Your task to perform on an android device: turn smart compose on in the gmail app Image 0: 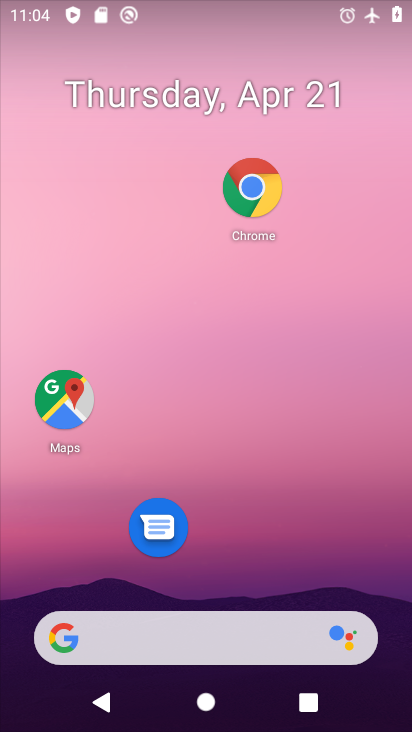
Step 0: drag from (284, 461) to (324, 183)
Your task to perform on an android device: turn smart compose on in the gmail app Image 1: 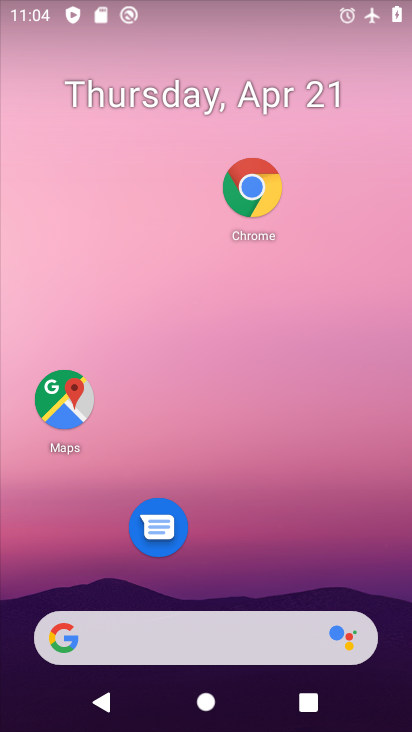
Step 1: drag from (264, 601) to (333, 181)
Your task to perform on an android device: turn smart compose on in the gmail app Image 2: 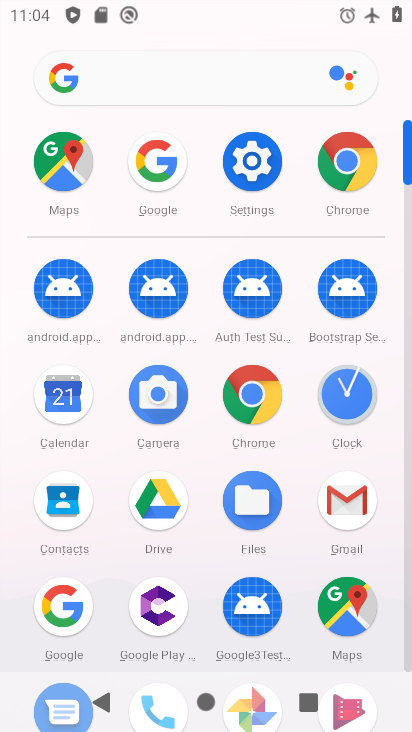
Step 2: click (384, 527)
Your task to perform on an android device: turn smart compose on in the gmail app Image 3: 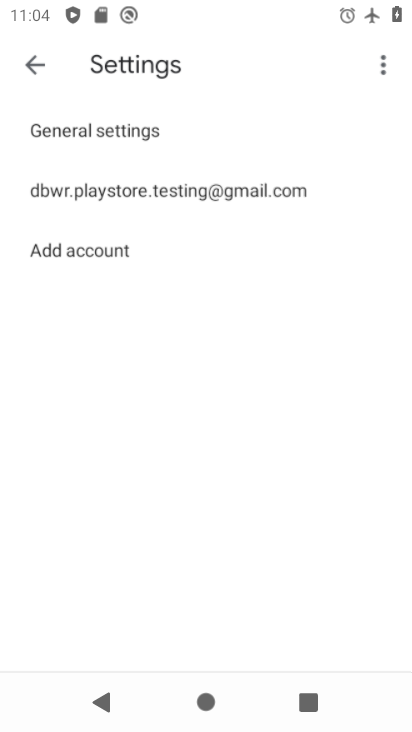
Step 3: drag from (357, 521) to (369, 422)
Your task to perform on an android device: turn smart compose on in the gmail app Image 4: 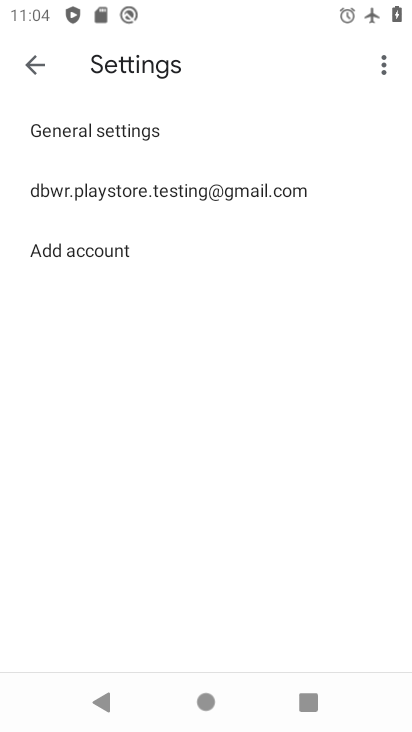
Step 4: click (43, 80)
Your task to perform on an android device: turn smart compose on in the gmail app Image 5: 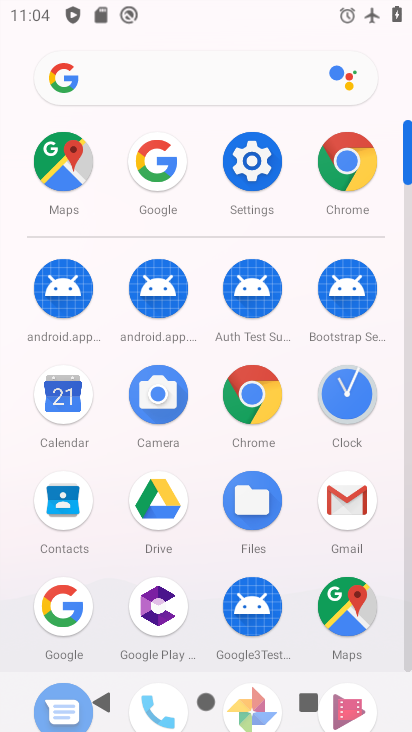
Step 5: click (376, 511)
Your task to perform on an android device: turn smart compose on in the gmail app Image 6: 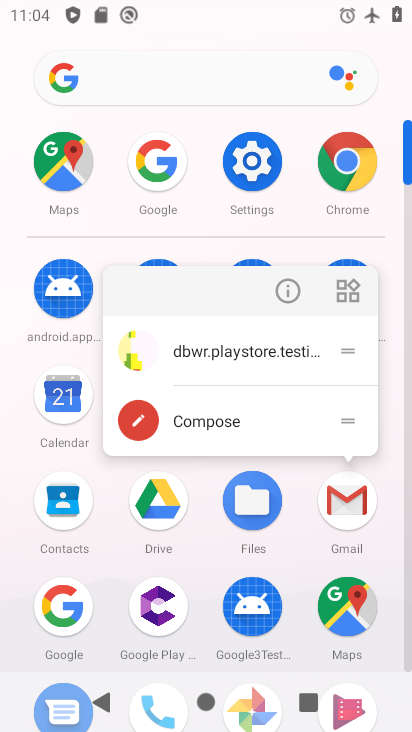
Step 6: click (360, 507)
Your task to perform on an android device: turn smart compose on in the gmail app Image 7: 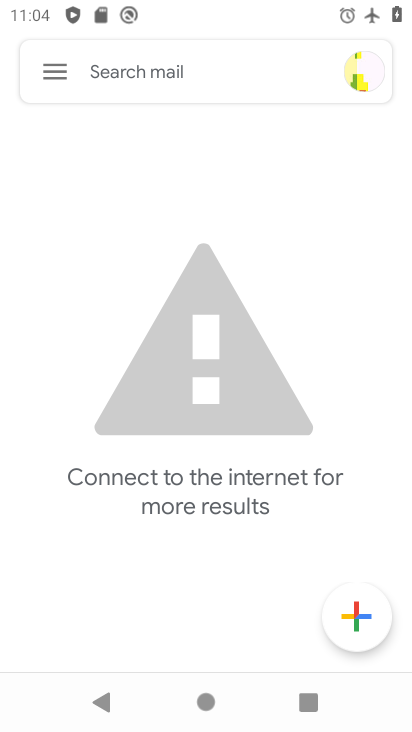
Step 7: click (45, 81)
Your task to perform on an android device: turn smart compose on in the gmail app Image 8: 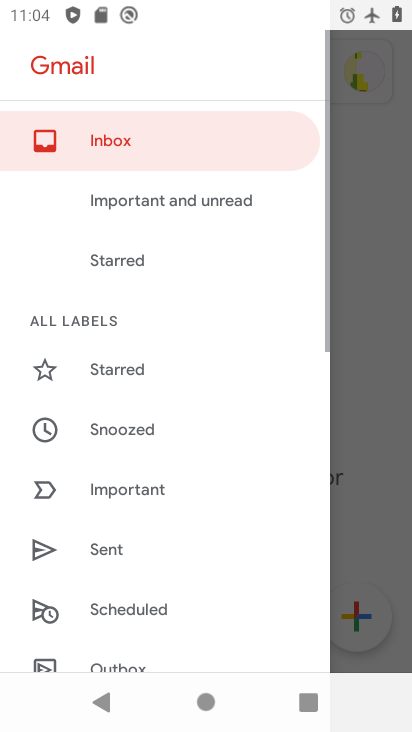
Step 8: drag from (119, 565) to (234, 110)
Your task to perform on an android device: turn smart compose on in the gmail app Image 9: 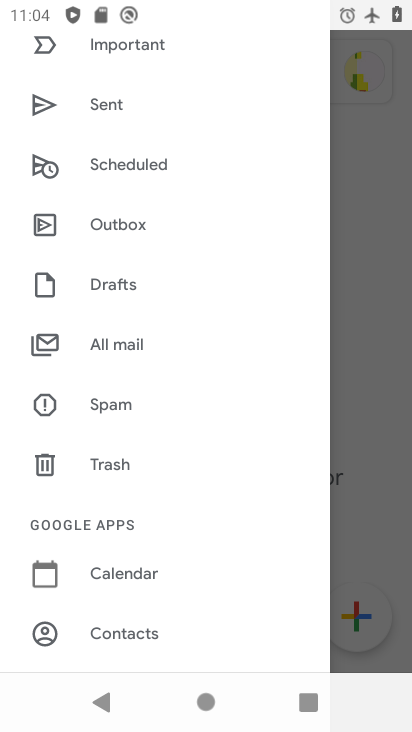
Step 9: drag from (166, 577) to (227, 153)
Your task to perform on an android device: turn smart compose on in the gmail app Image 10: 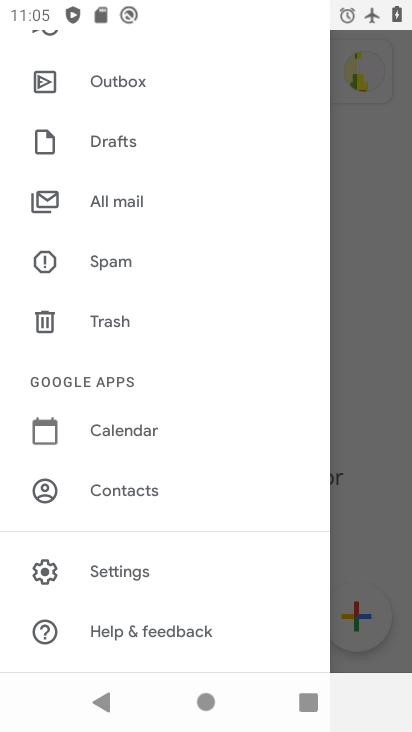
Step 10: click (138, 563)
Your task to perform on an android device: turn smart compose on in the gmail app Image 11: 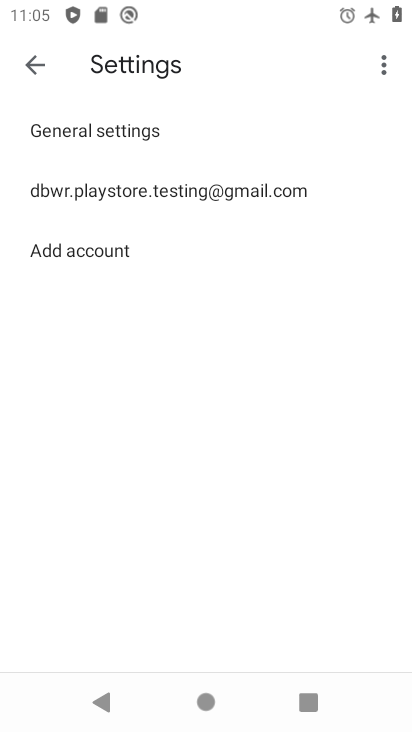
Step 11: click (227, 199)
Your task to perform on an android device: turn smart compose on in the gmail app Image 12: 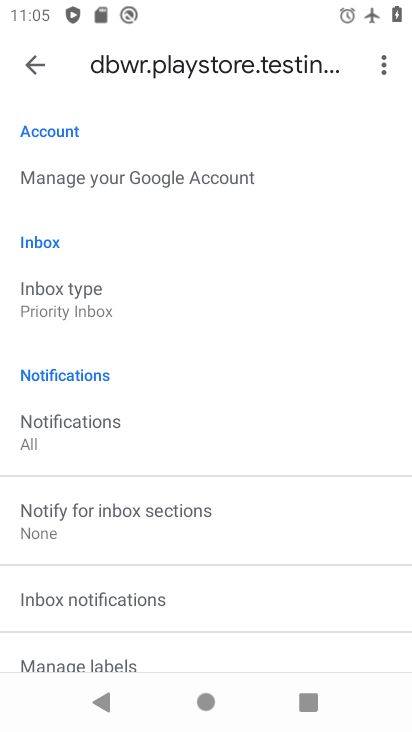
Step 12: task complete